Your task to perform on an android device: check out phone information Image 0: 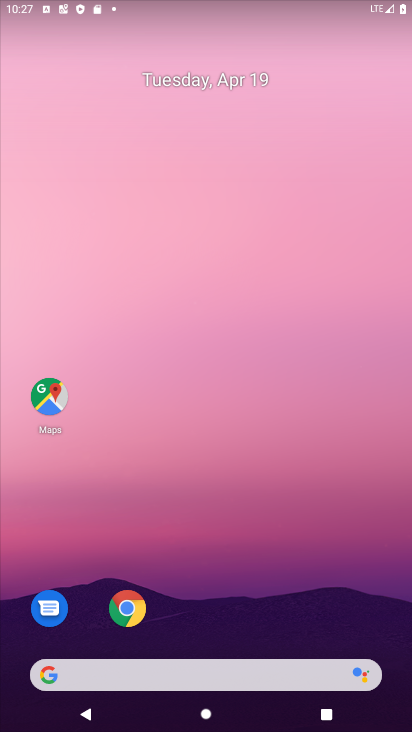
Step 0: drag from (372, 617) to (336, 117)
Your task to perform on an android device: check out phone information Image 1: 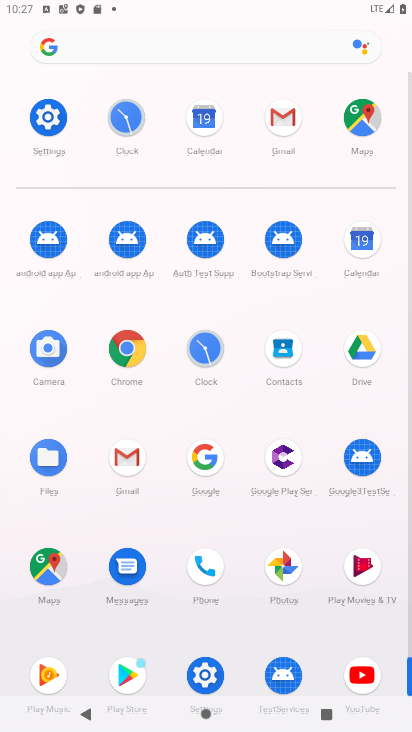
Step 1: click (202, 676)
Your task to perform on an android device: check out phone information Image 2: 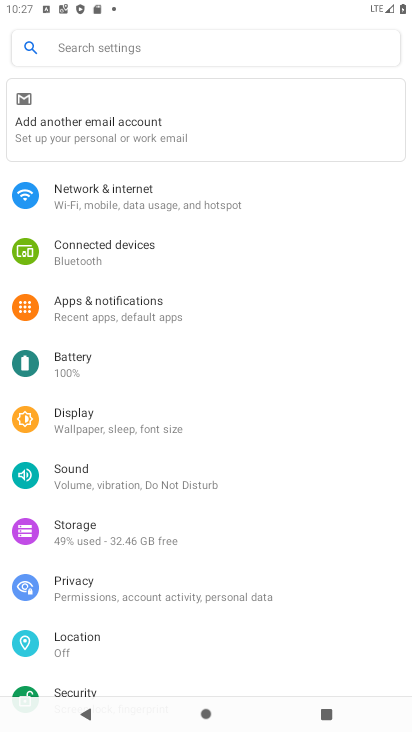
Step 2: drag from (313, 612) to (313, 298)
Your task to perform on an android device: check out phone information Image 3: 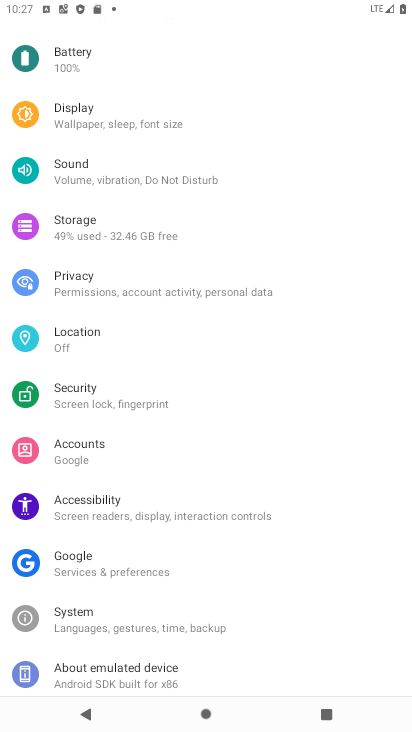
Step 3: drag from (287, 521) to (324, 250)
Your task to perform on an android device: check out phone information Image 4: 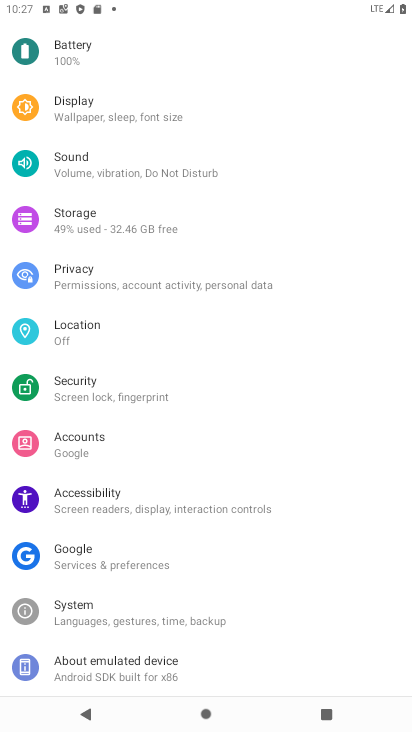
Step 4: click (77, 660)
Your task to perform on an android device: check out phone information Image 5: 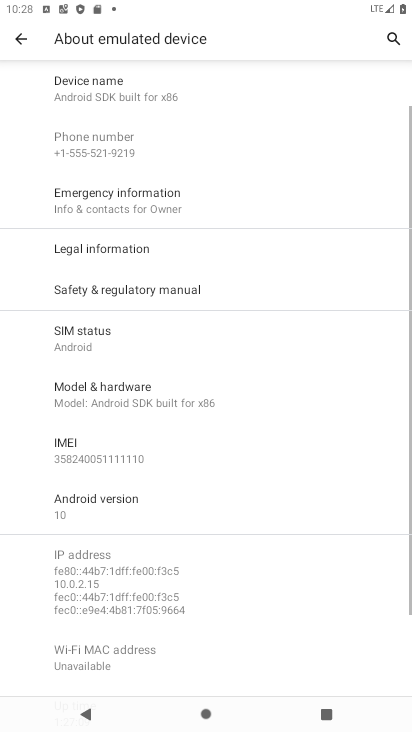
Step 5: click (281, 179)
Your task to perform on an android device: check out phone information Image 6: 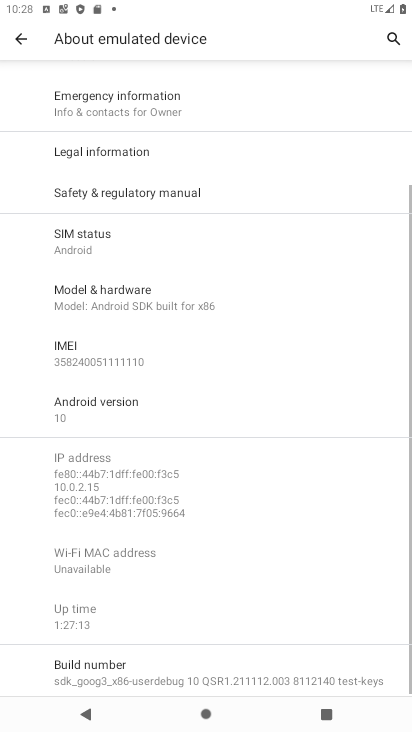
Step 6: task complete